Your task to perform on an android device: Do I have any events tomorrow? Image 0: 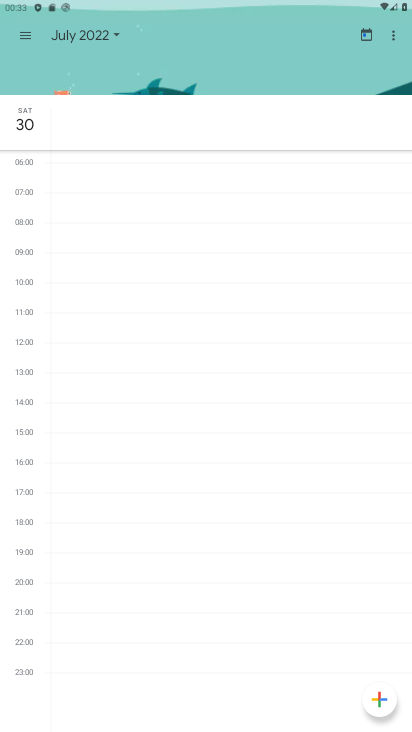
Step 0: click (67, 44)
Your task to perform on an android device: Do I have any events tomorrow? Image 1: 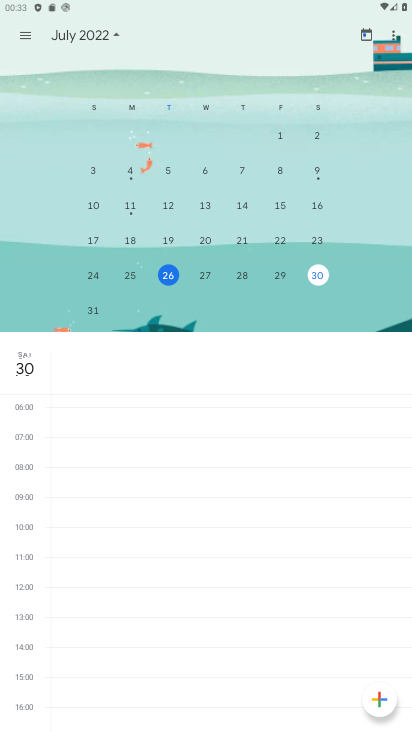
Step 1: click (208, 281)
Your task to perform on an android device: Do I have any events tomorrow? Image 2: 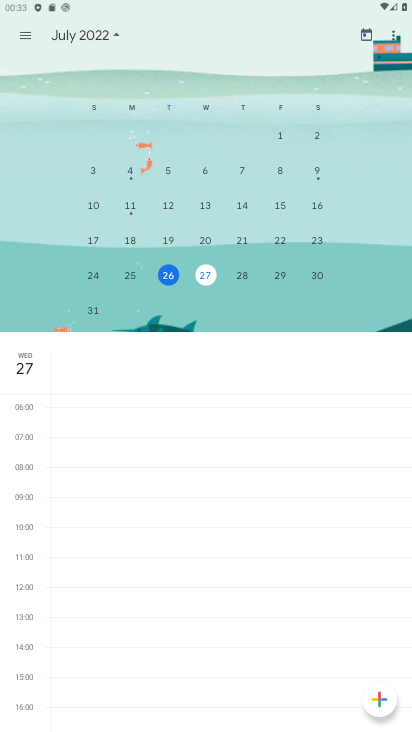
Step 2: task complete